Your task to perform on an android device: What's the weather? Image 0: 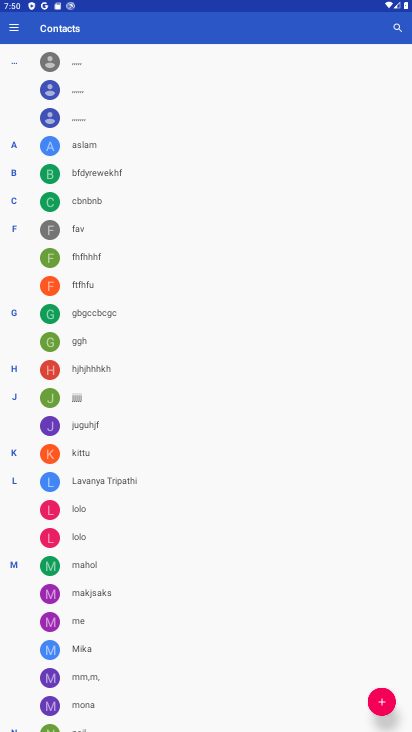
Step 0: press home button
Your task to perform on an android device: What's the weather? Image 1: 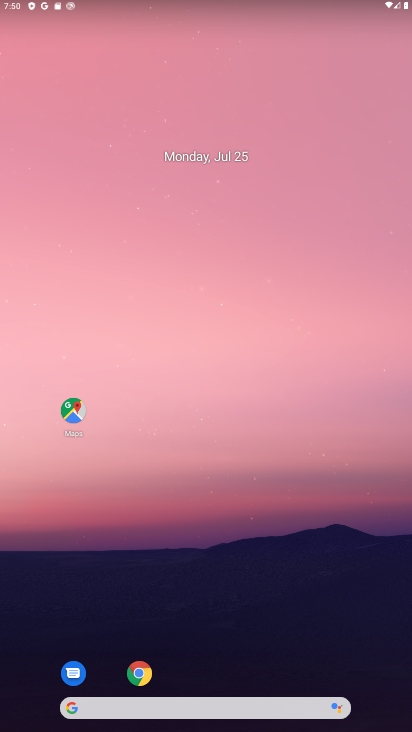
Step 1: drag from (276, 675) to (243, 66)
Your task to perform on an android device: What's the weather? Image 2: 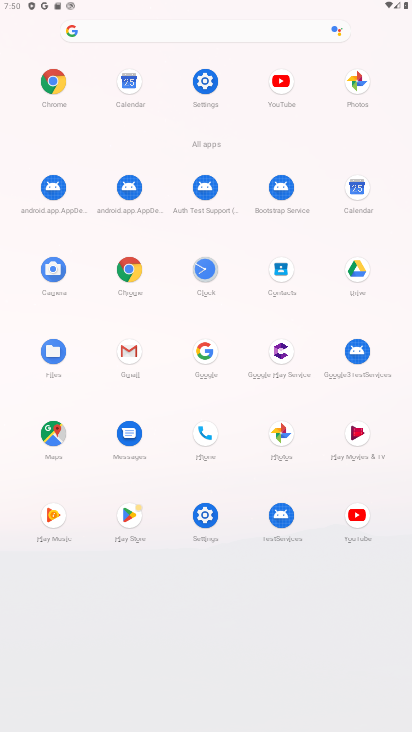
Step 2: click (206, 38)
Your task to perform on an android device: What's the weather? Image 3: 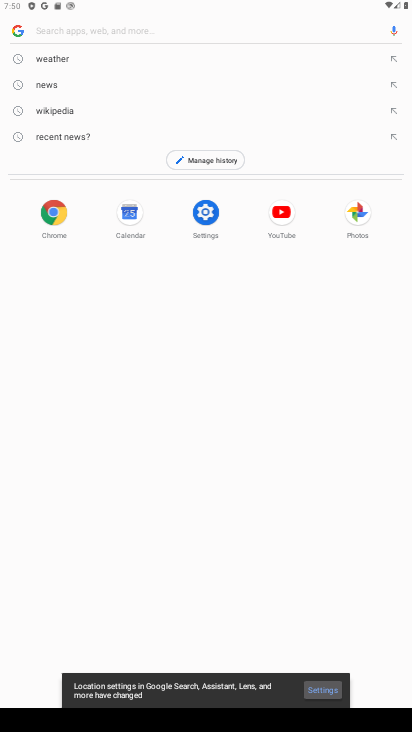
Step 3: click (122, 67)
Your task to perform on an android device: What's the weather? Image 4: 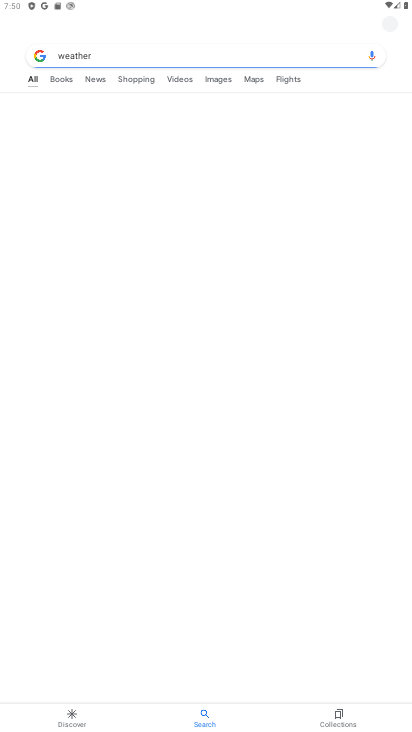
Step 4: task complete